Your task to perform on an android device: turn on translation in the chrome app Image 0: 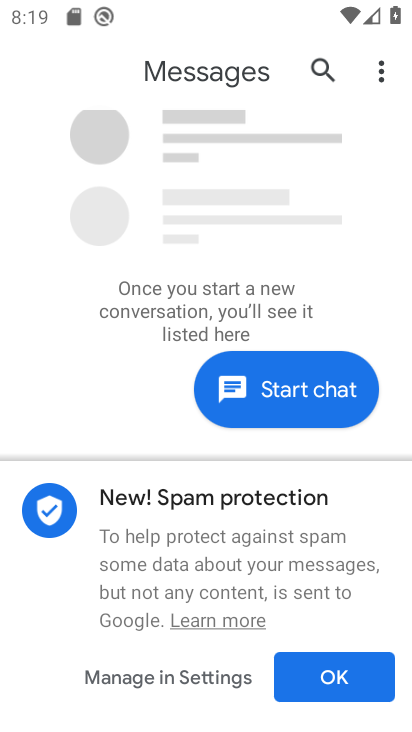
Step 0: press home button
Your task to perform on an android device: turn on translation in the chrome app Image 1: 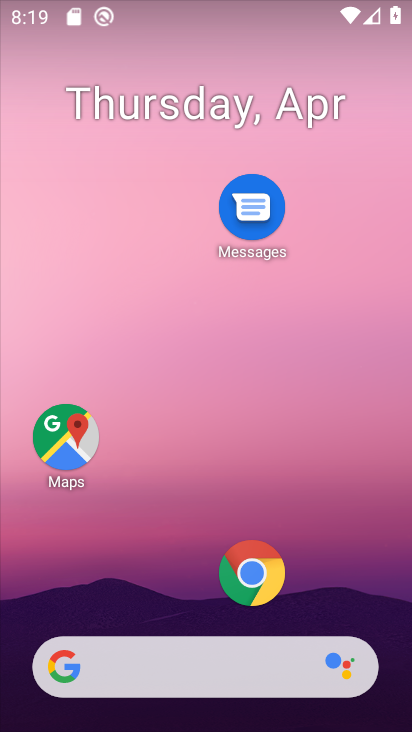
Step 1: click (250, 568)
Your task to perform on an android device: turn on translation in the chrome app Image 2: 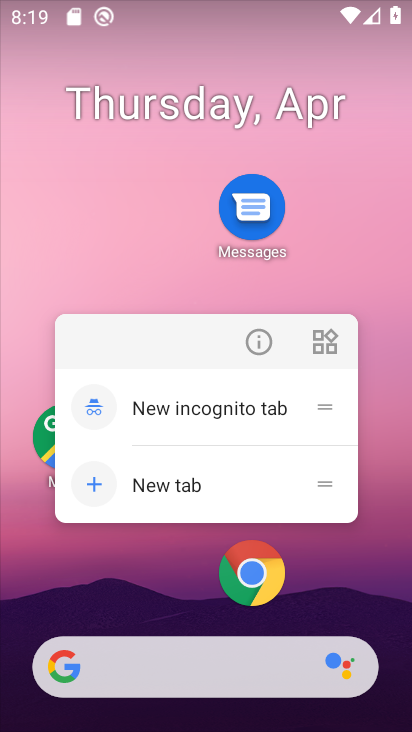
Step 2: click (249, 569)
Your task to perform on an android device: turn on translation in the chrome app Image 3: 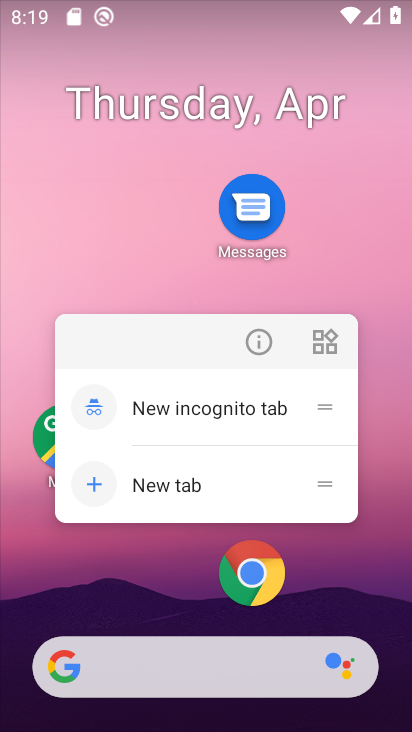
Step 3: click (251, 568)
Your task to perform on an android device: turn on translation in the chrome app Image 4: 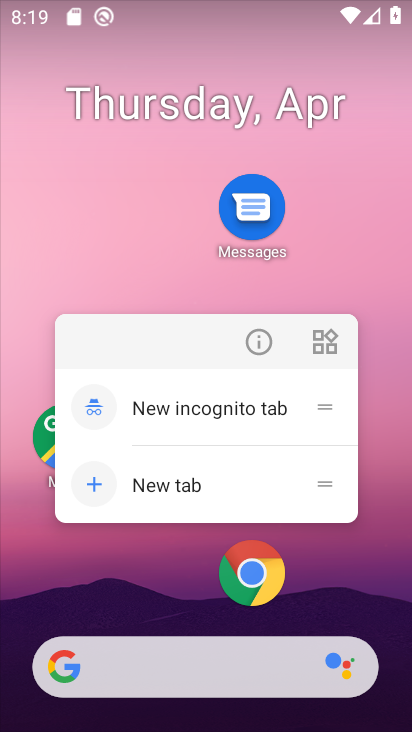
Step 4: click (207, 622)
Your task to perform on an android device: turn on translation in the chrome app Image 5: 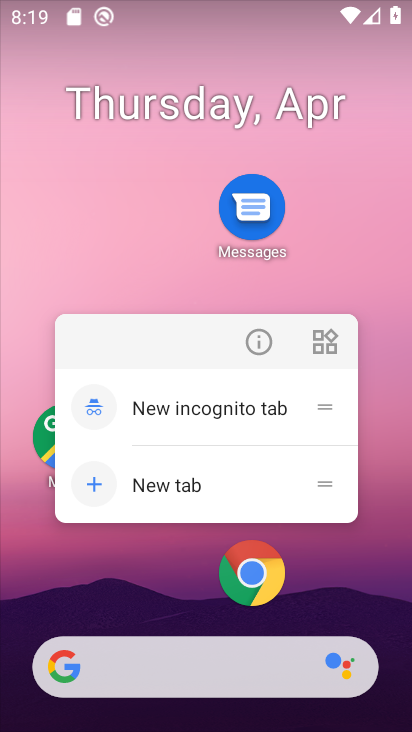
Step 5: drag from (296, 594) to (343, 124)
Your task to perform on an android device: turn on translation in the chrome app Image 6: 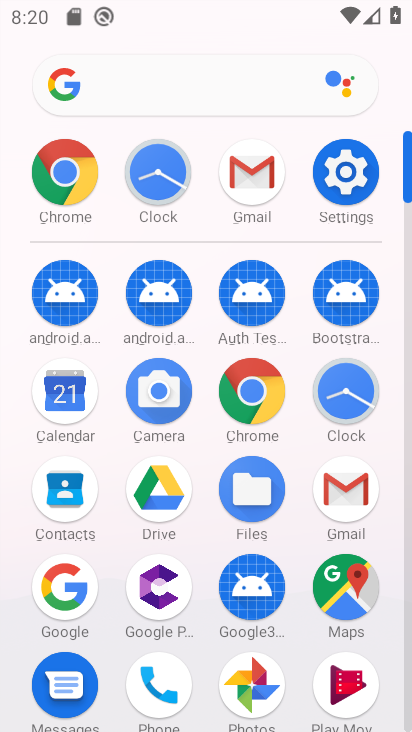
Step 6: click (249, 386)
Your task to perform on an android device: turn on translation in the chrome app Image 7: 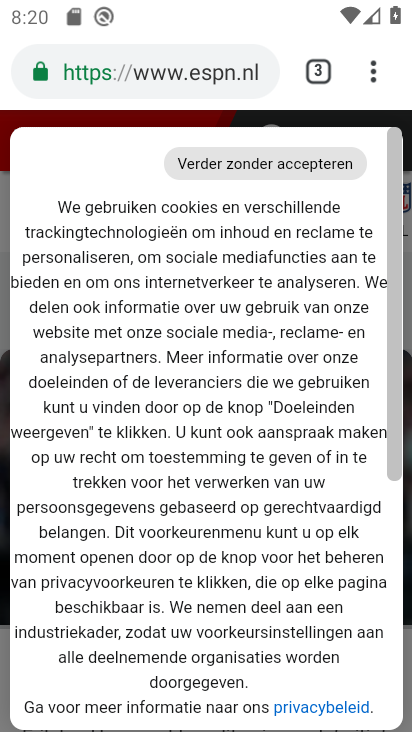
Step 7: click (374, 65)
Your task to perform on an android device: turn on translation in the chrome app Image 8: 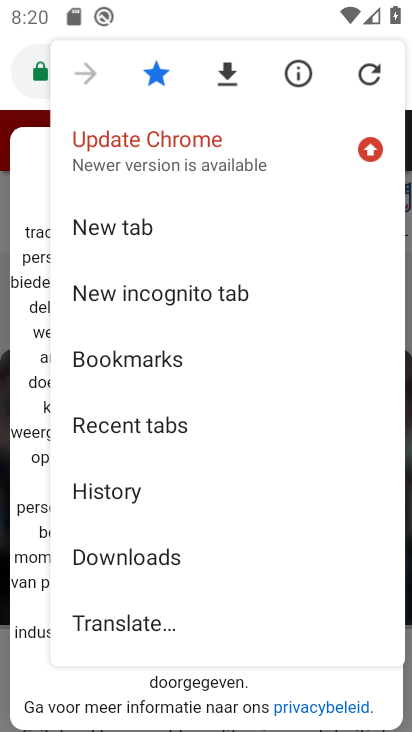
Step 8: drag from (214, 585) to (224, 138)
Your task to perform on an android device: turn on translation in the chrome app Image 9: 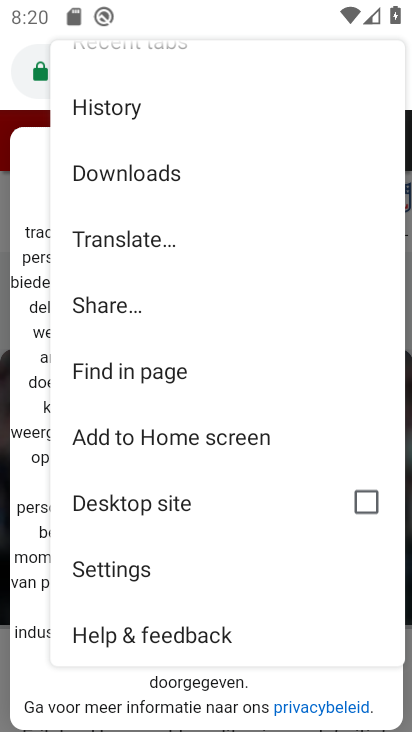
Step 9: click (162, 566)
Your task to perform on an android device: turn on translation in the chrome app Image 10: 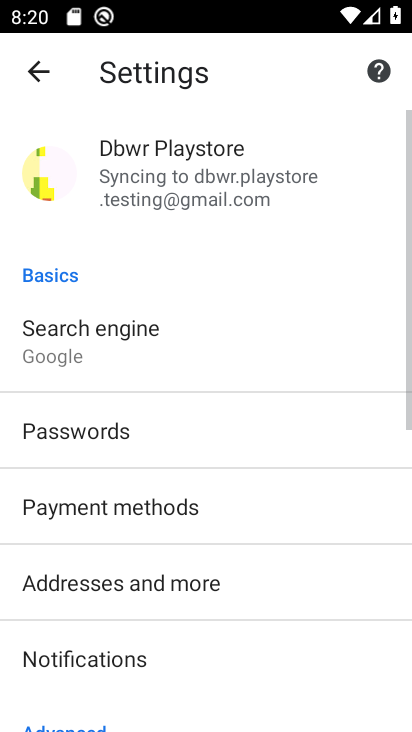
Step 10: drag from (236, 648) to (254, 159)
Your task to perform on an android device: turn on translation in the chrome app Image 11: 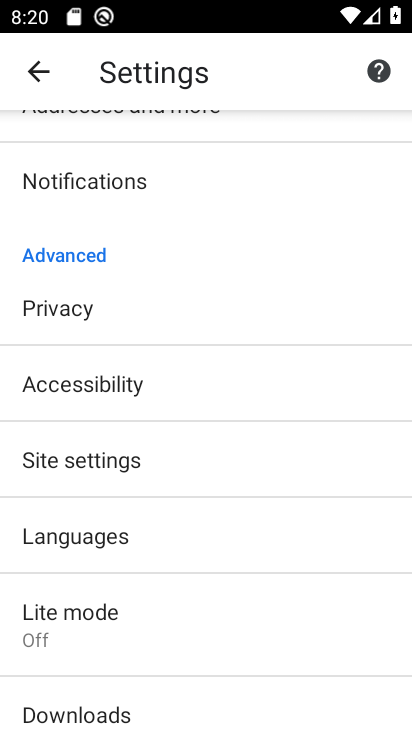
Step 11: click (155, 532)
Your task to perform on an android device: turn on translation in the chrome app Image 12: 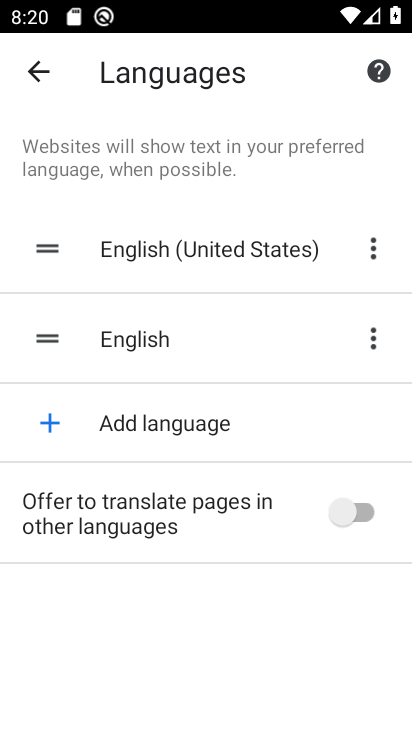
Step 12: click (361, 506)
Your task to perform on an android device: turn on translation in the chrome app Image 13: 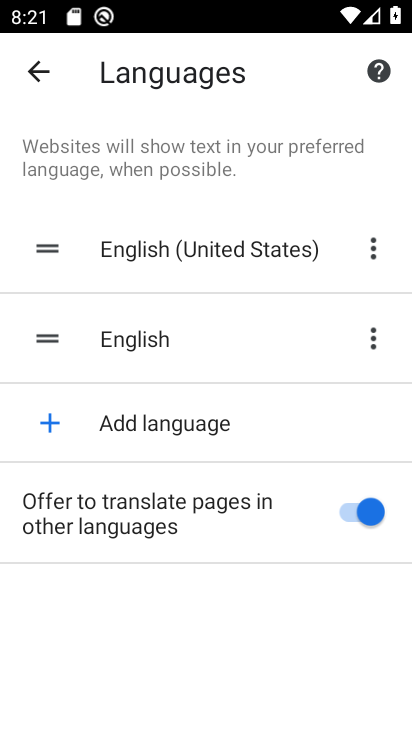
Step 13: task complete